Your task to perform on an android device: When is my next meeting? Image 0: 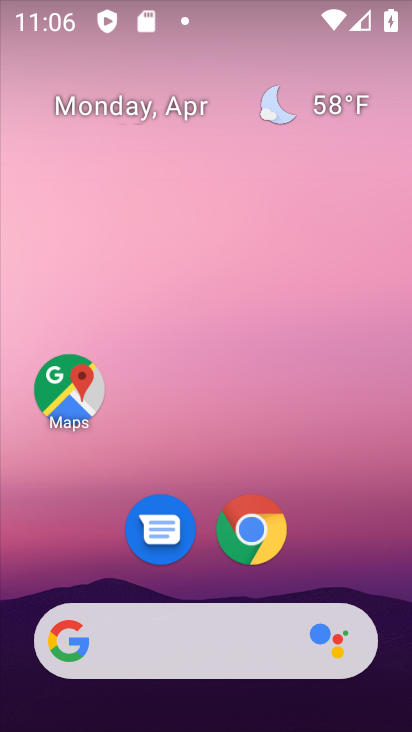
Step 0: drag from (381, 595) to (335, 40)
Your task to perform on an android device: When is my next meeting? Image 1: 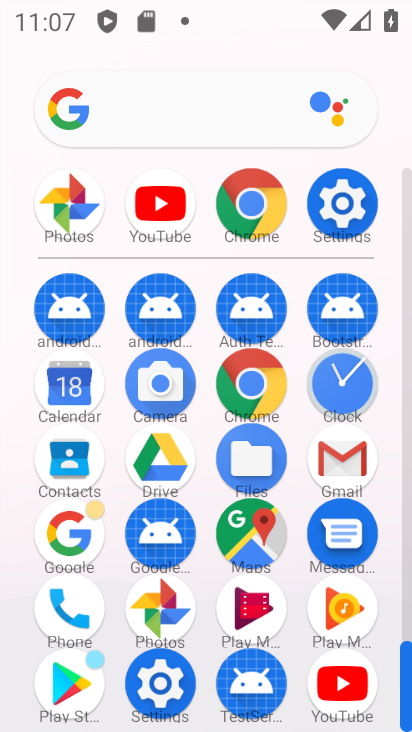
Step 1: click (70, 377)
Your task to perform on an android device: When is my next meeting? Image 2: 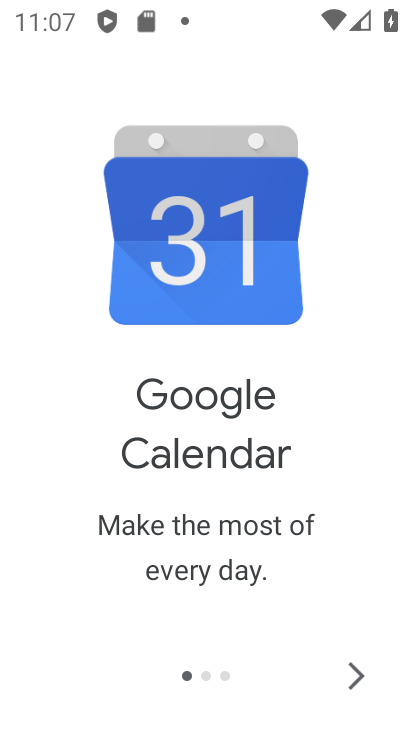
Step 2: click (359, 664)
Your task to perform on an android device: When is my next meeting? Image 3: 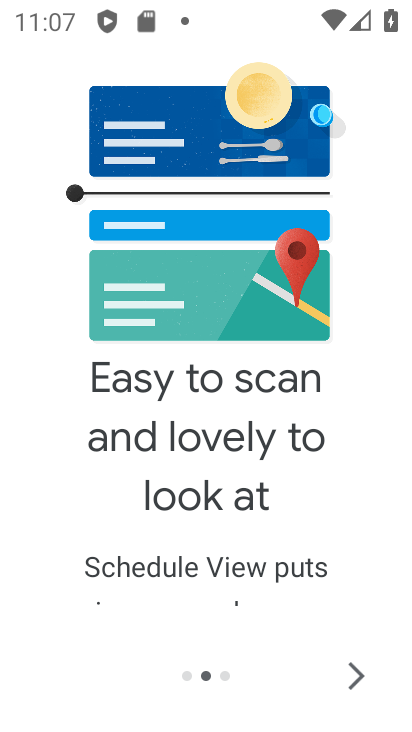
Step 3: click (359, 664)
Your task to perform on an android device: When is my next meeting? Image 4: 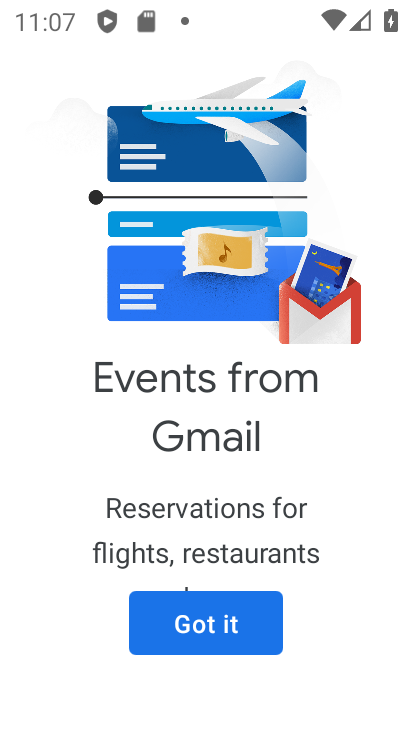
Step 4: click (237, 596)
Your task to perform on an android device: When is my next meeting? Image 5: 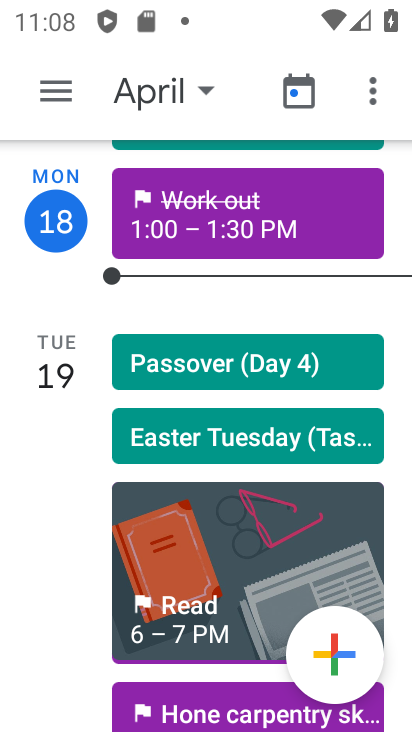
Step 5: task complete